Your task to perform on an android device: change timer sound Image 0: 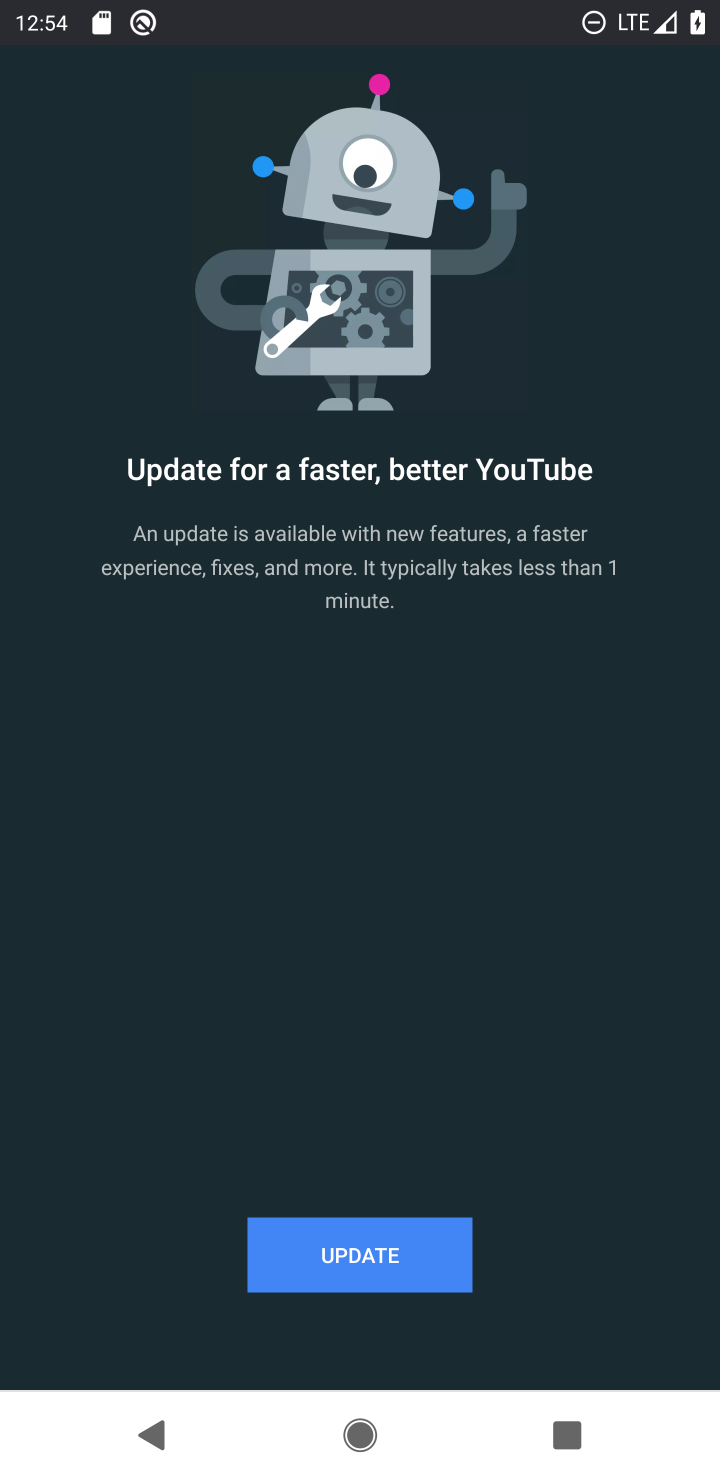
Step 0: click (610, 1262)
Your task to perform on an android device: change timer sound Image 1: 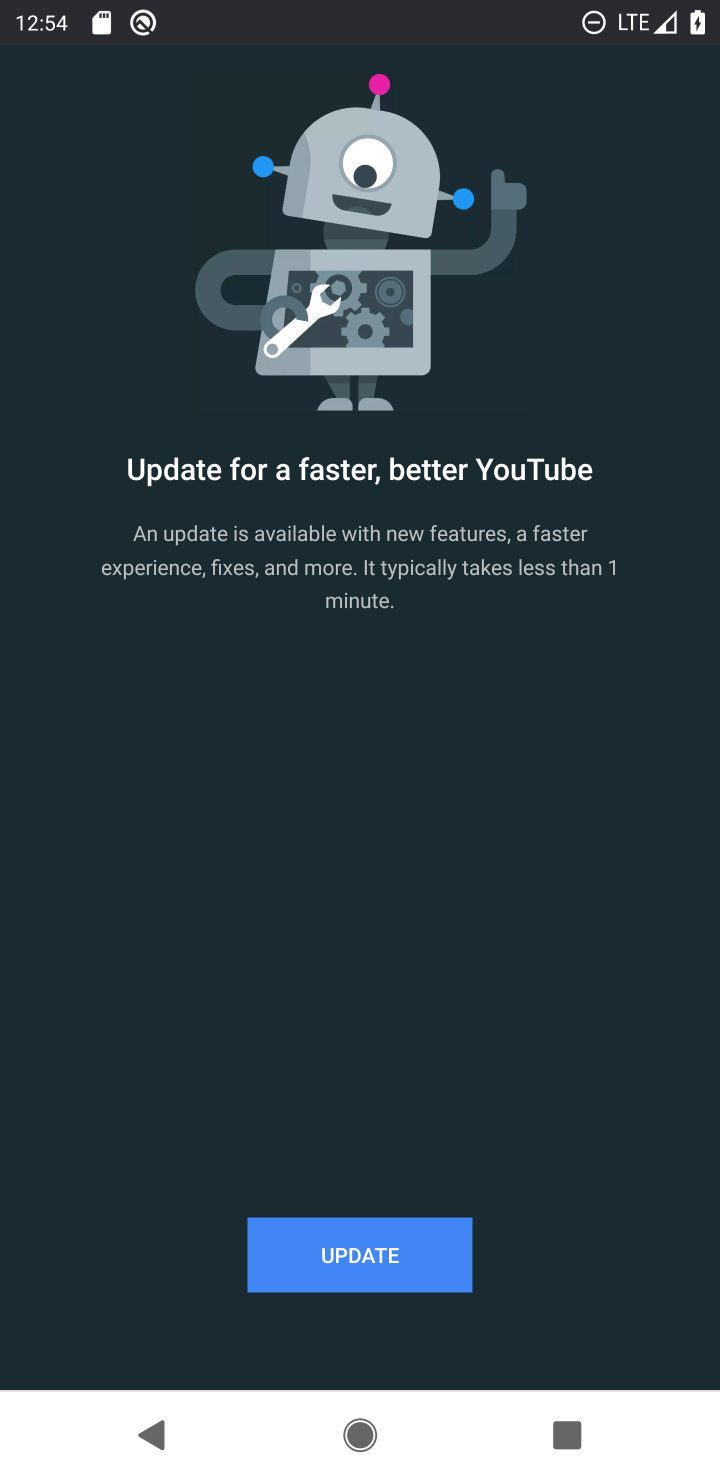
Step 1: press home button
Your task to perform on an android device: change timer sound Image 2: 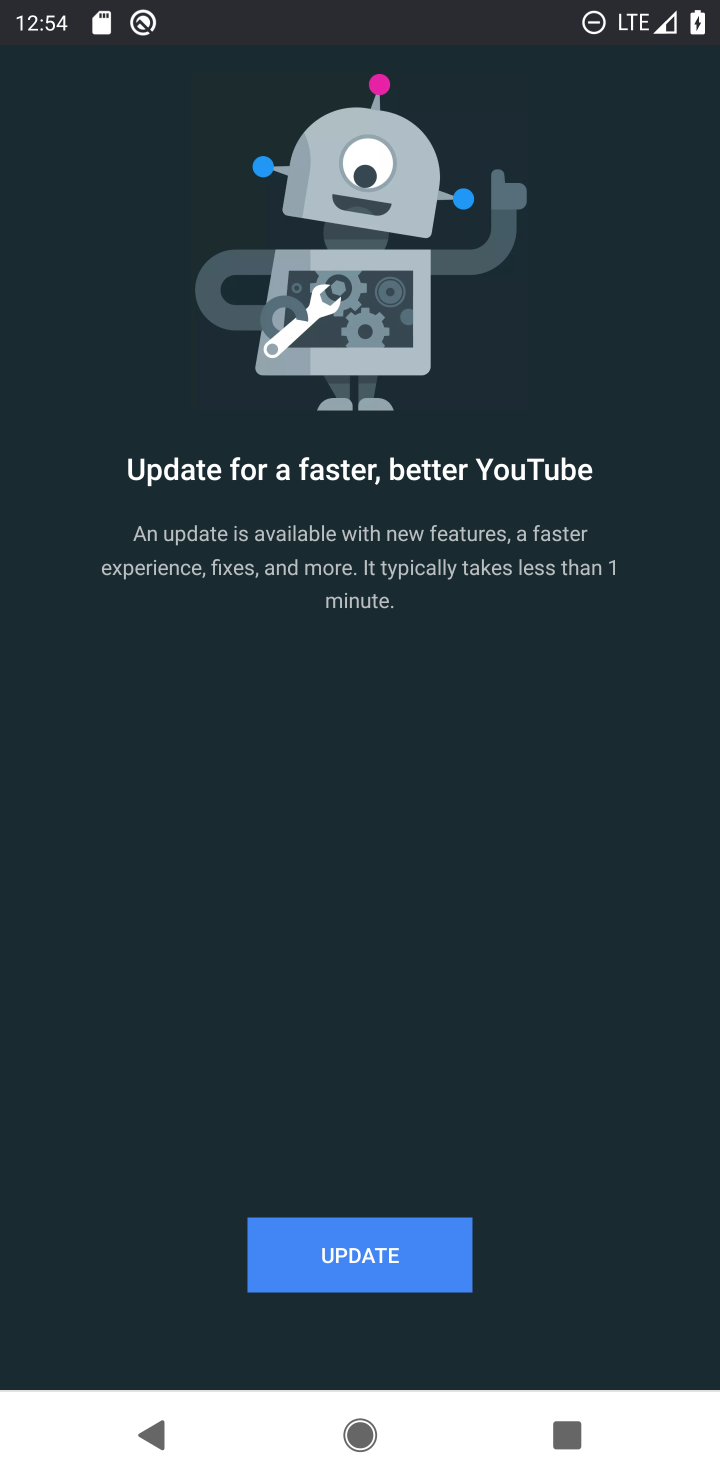
Step 2: drag from (659, 1343) to (260, 34)
Your task to perform on an android device: change timer sound Image 3: 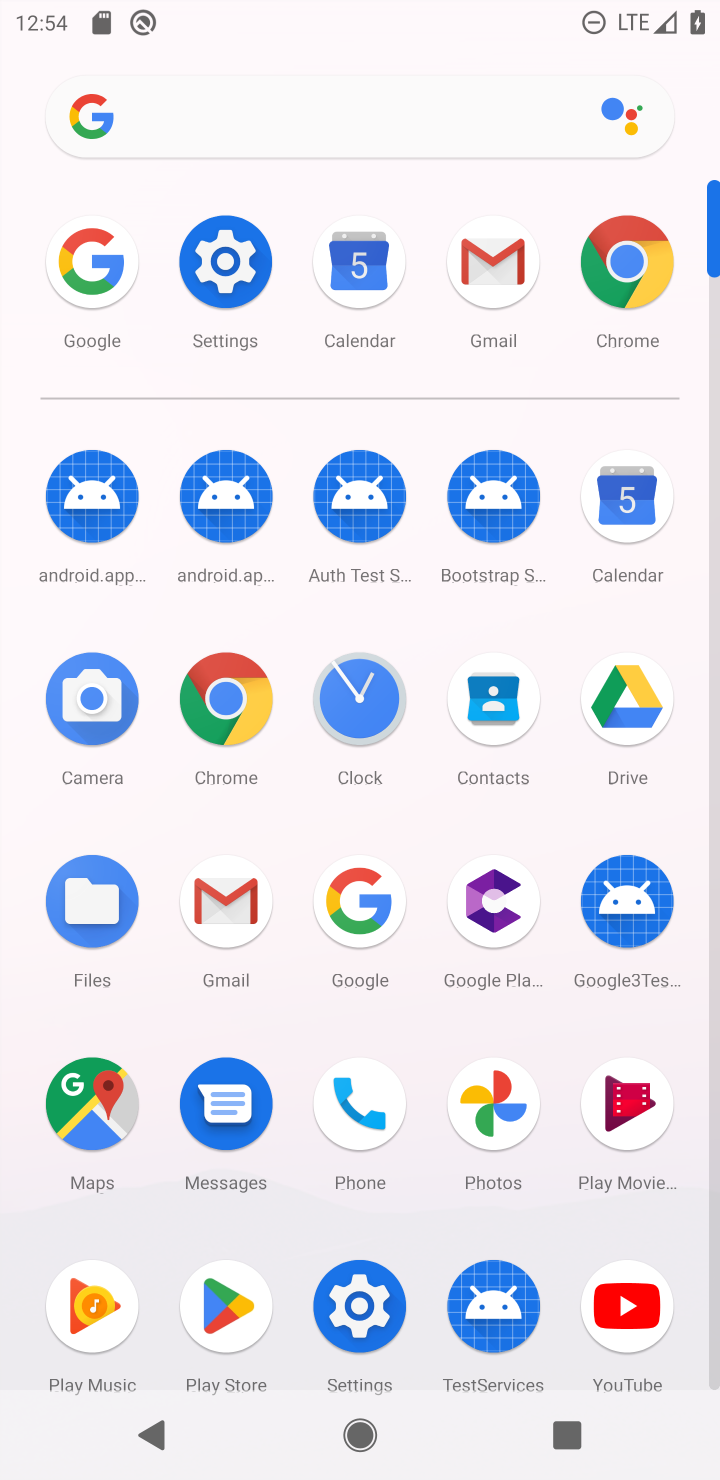
Step 3: click (369, 751)
Your task to perform on an android device: change timer sound Image 4: 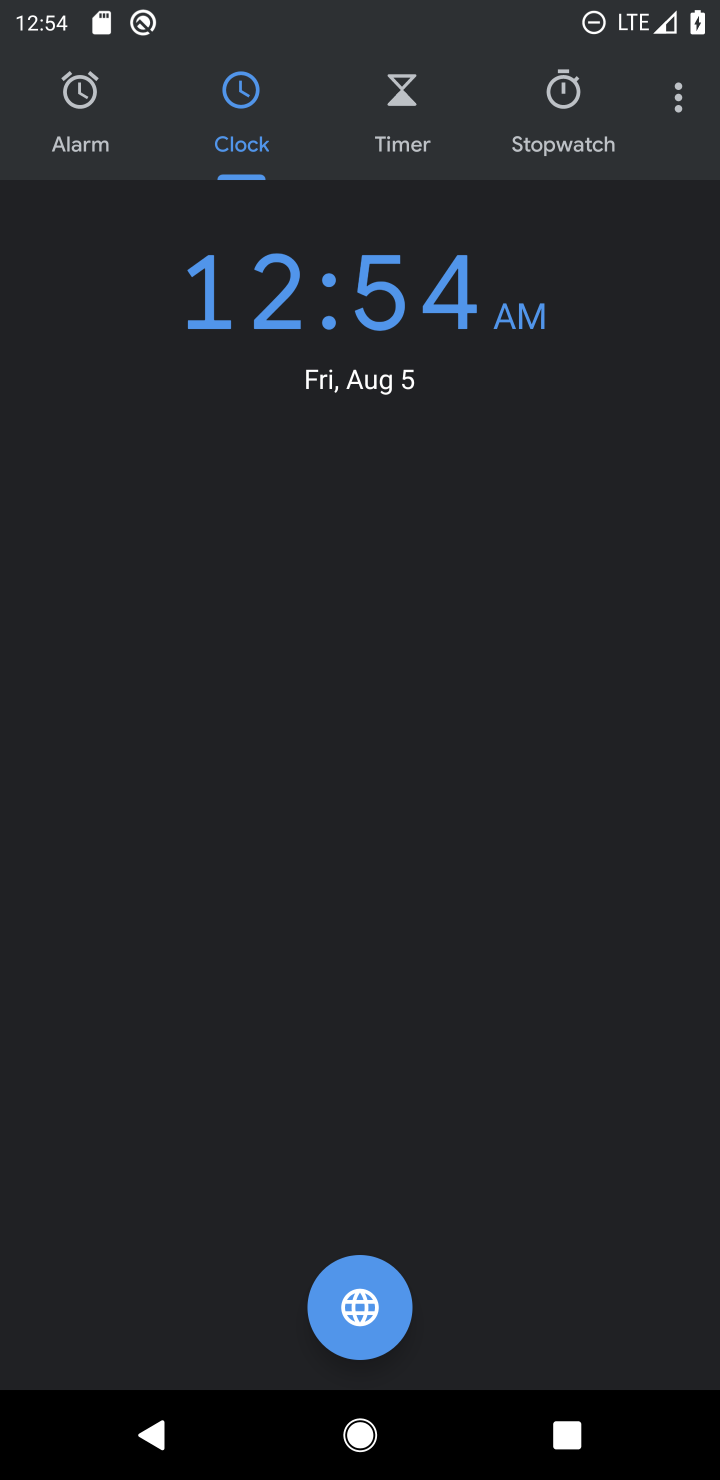
Step 4: click (679, 96)
Your task to perform on an android device: change timer sound Image 5: 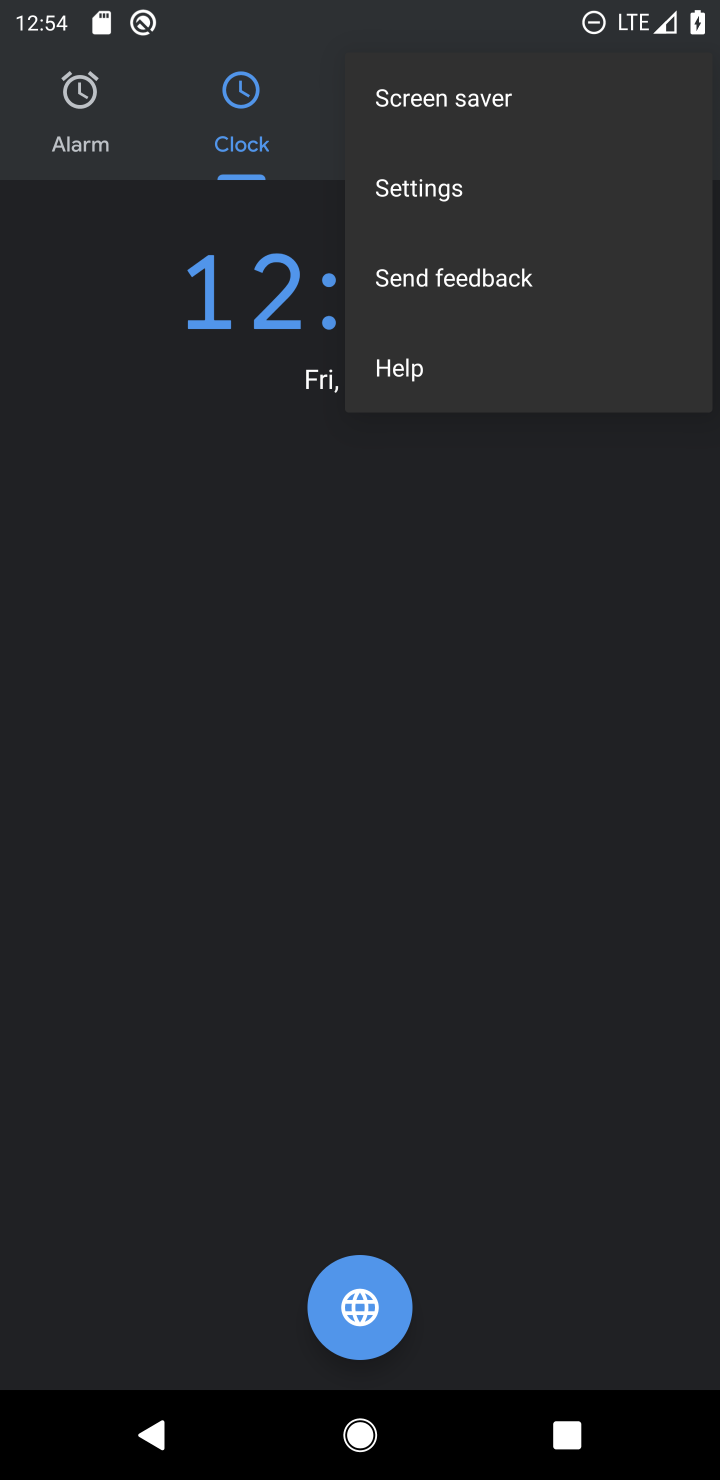
Step 5: click (390, 212)
Your task to perform on an android device: change timer sound Image 6: 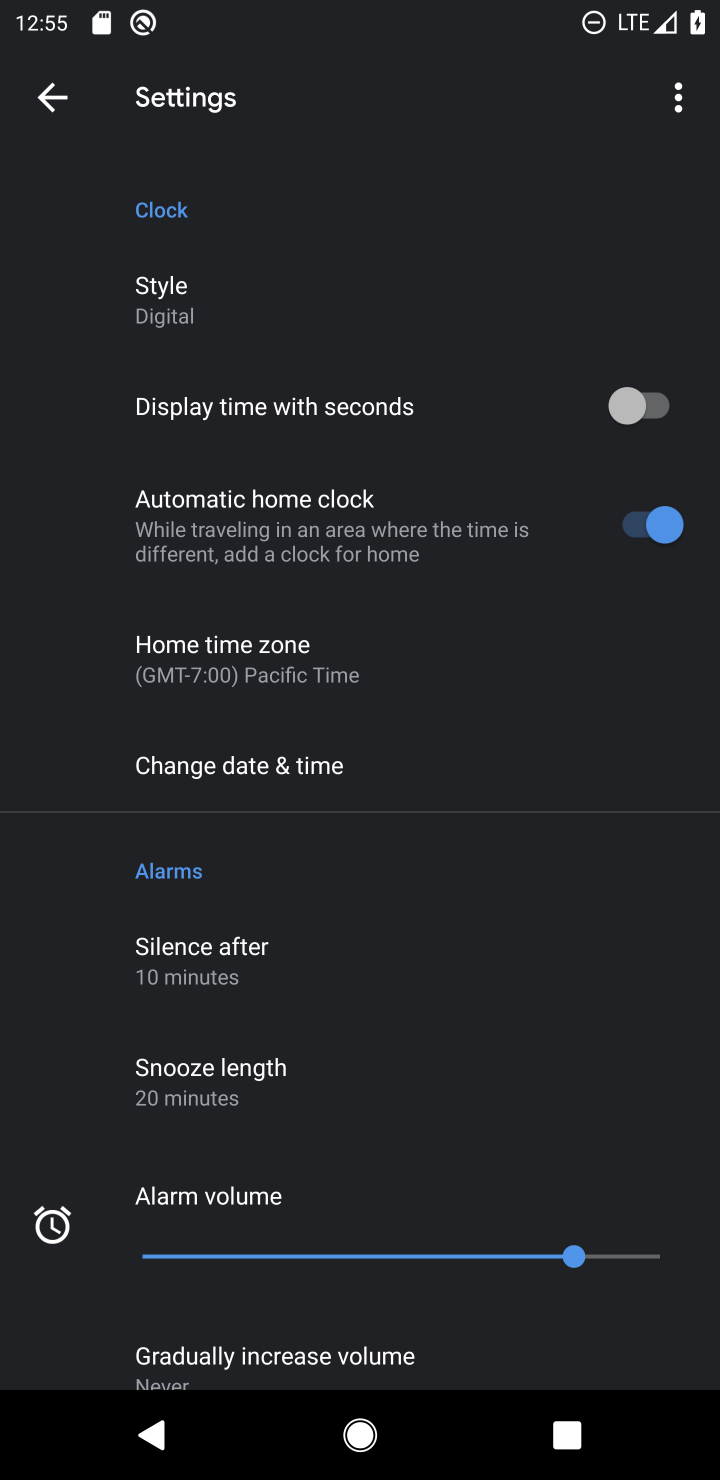
Step 6: drag from (237, 1130) to (306, 164)
Your task to perform on an android device: change timer sound Image 7: 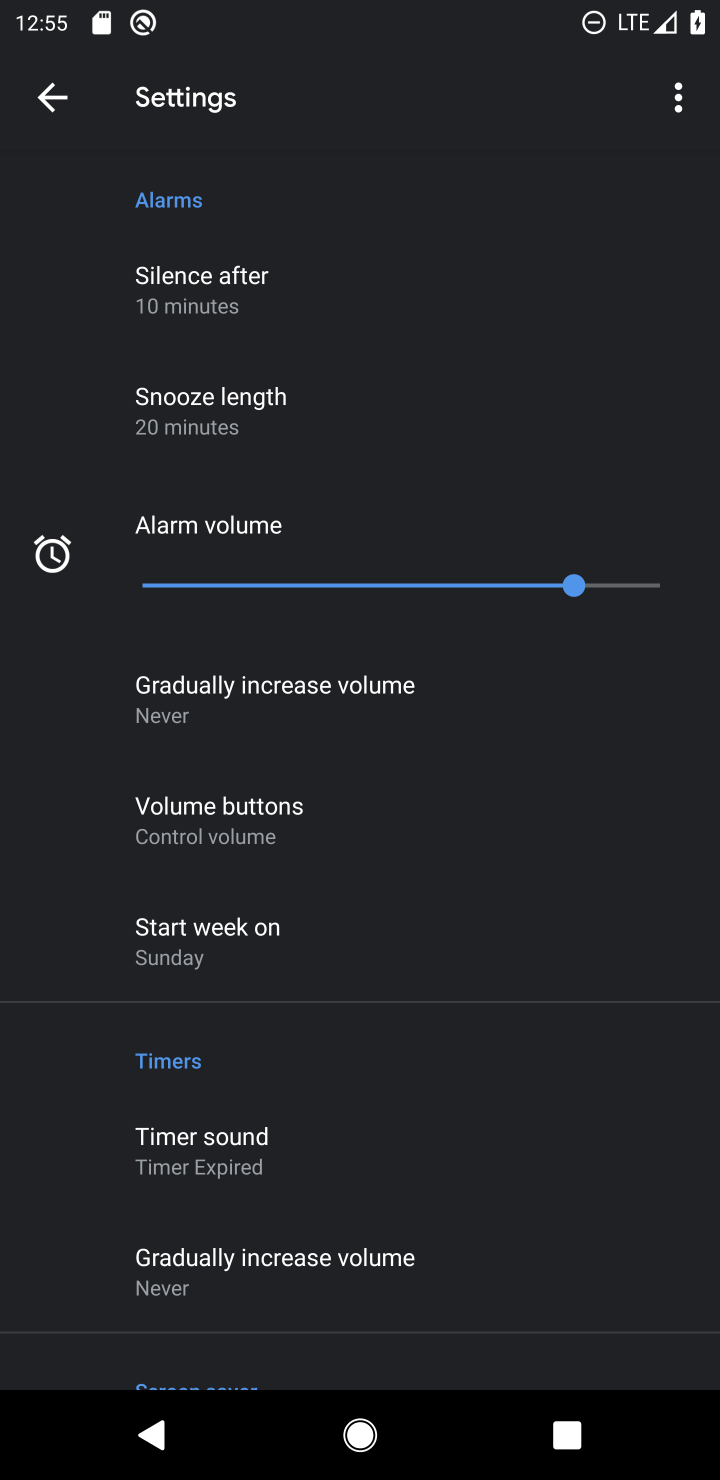
Step 7: click (265, 1144)
Your task to perform on an android device: change timer sound Image 8: 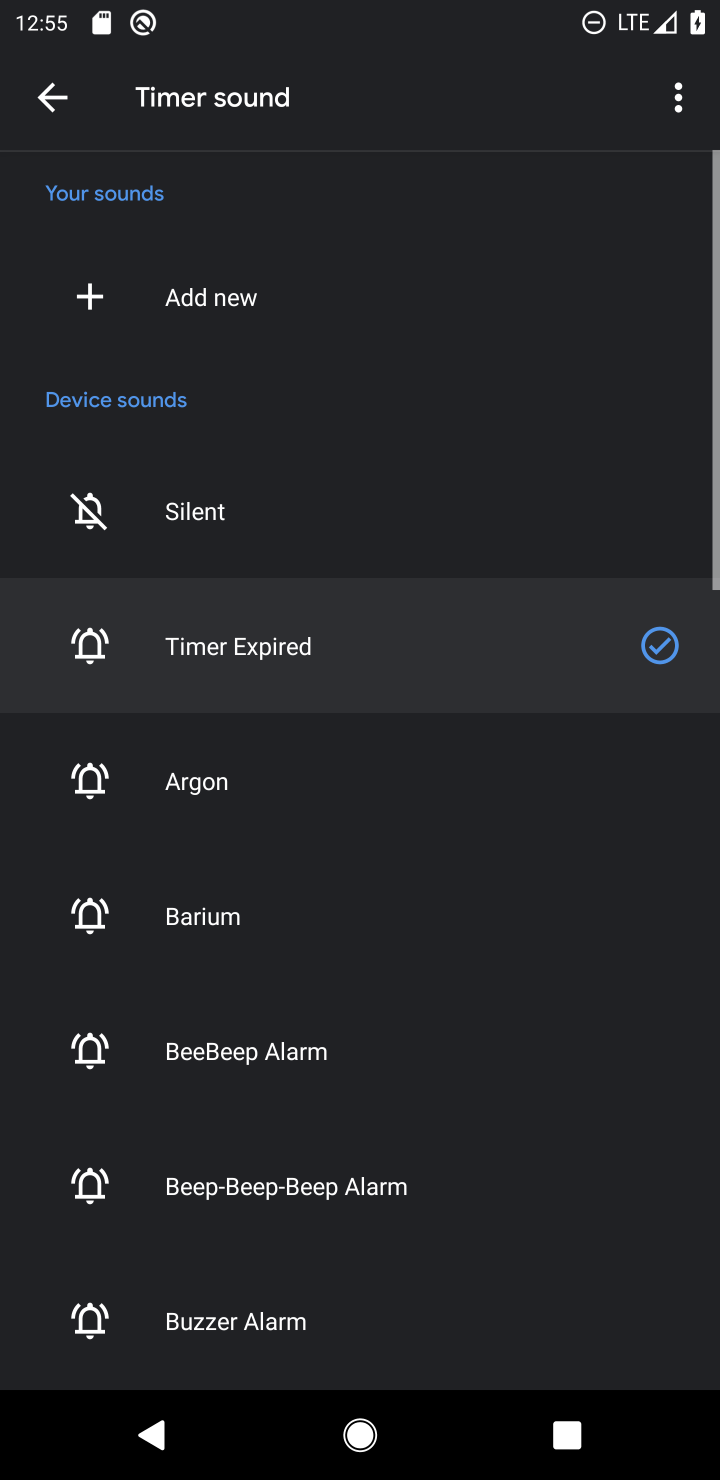
Step 8: click (205, 779)
Your task to perform on an android device: change timer sound Image 9: 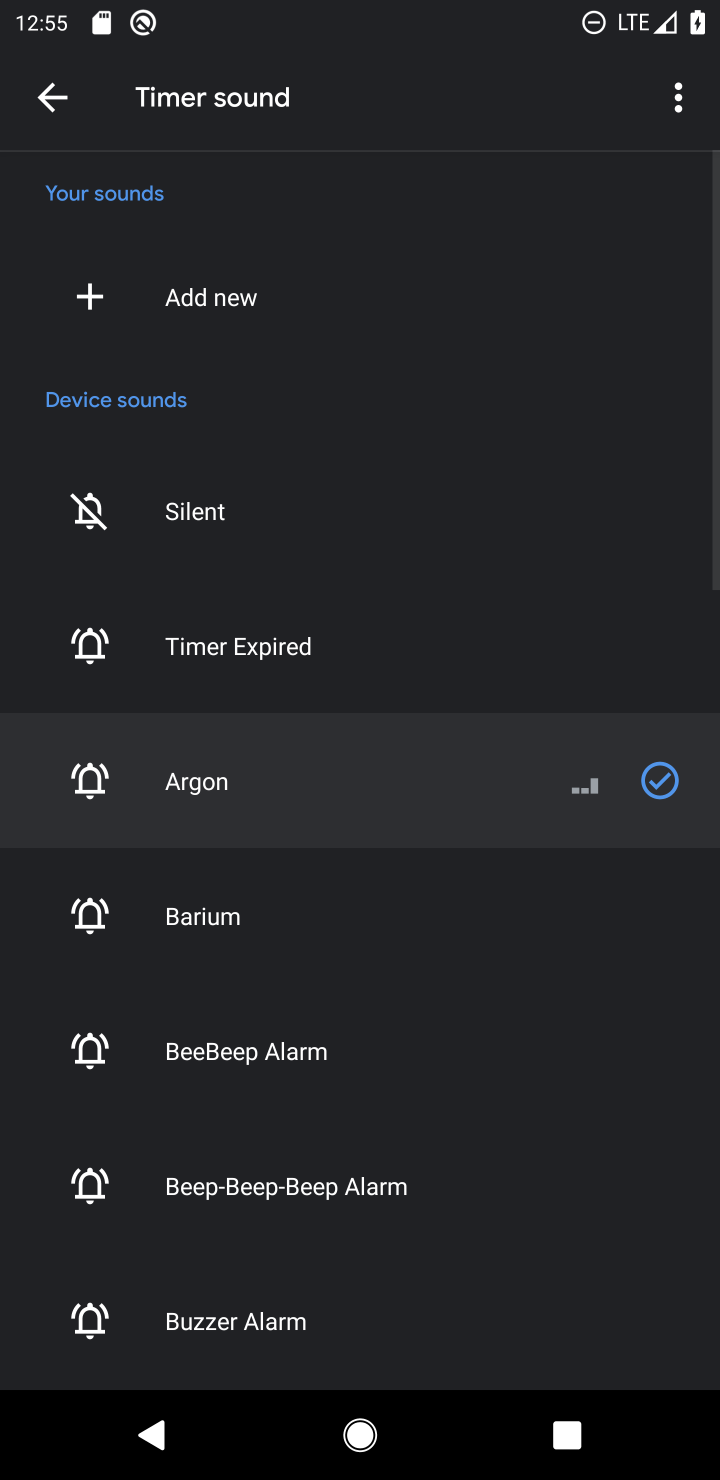
Step 9: task complete